Your task to perform on an android device: install app "The Home Depot" Image 0: 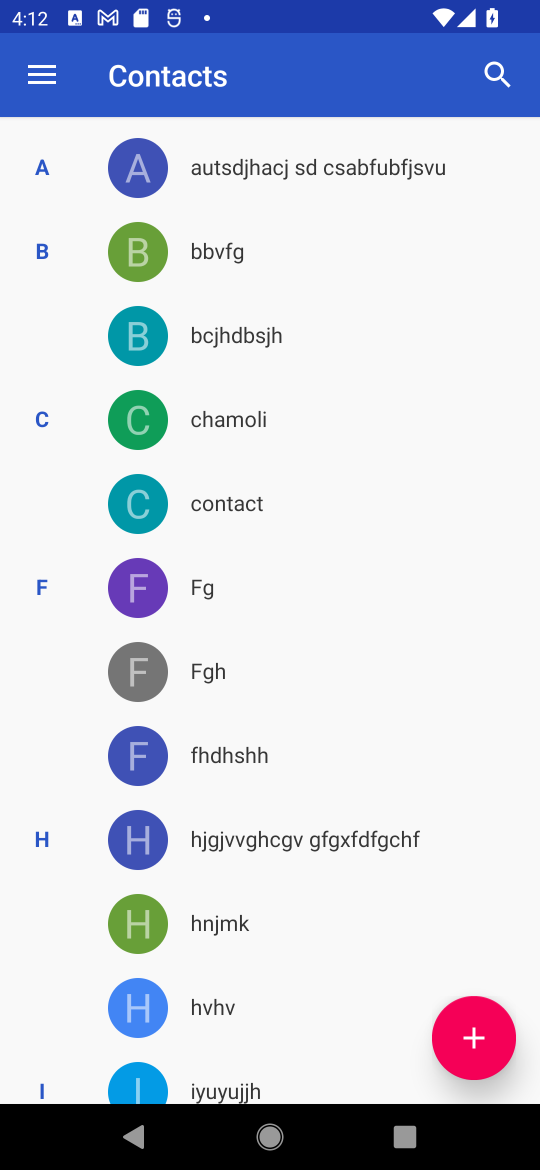
Step 0: press home button
Your task to perform on an android device: install app "The Home Depot" Image 1: 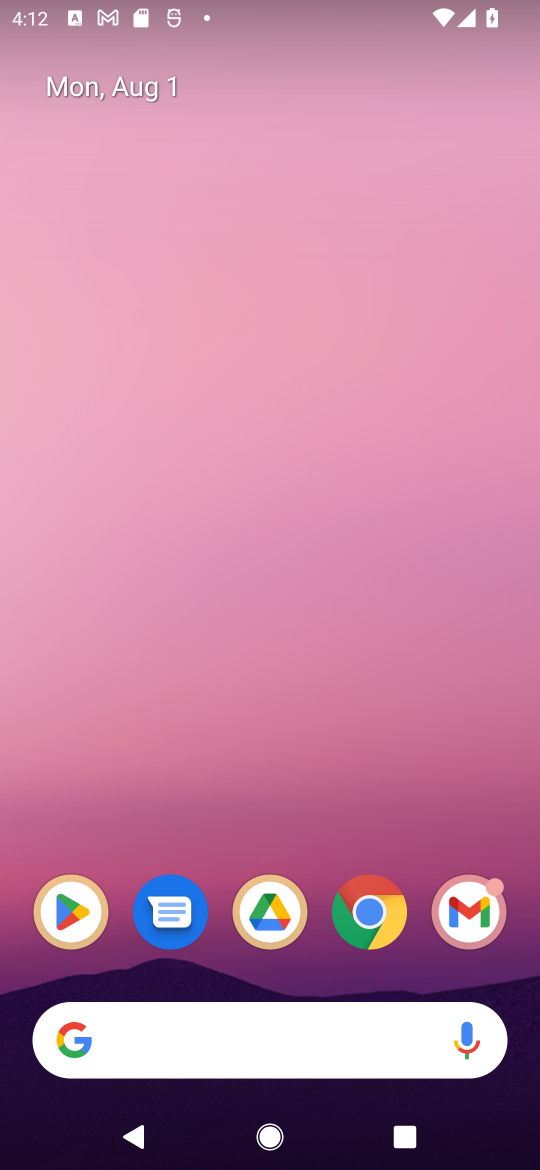
Step 1: click (67, 913)
Your task to perform on an android device: install app "The Home Depot" Image 2: 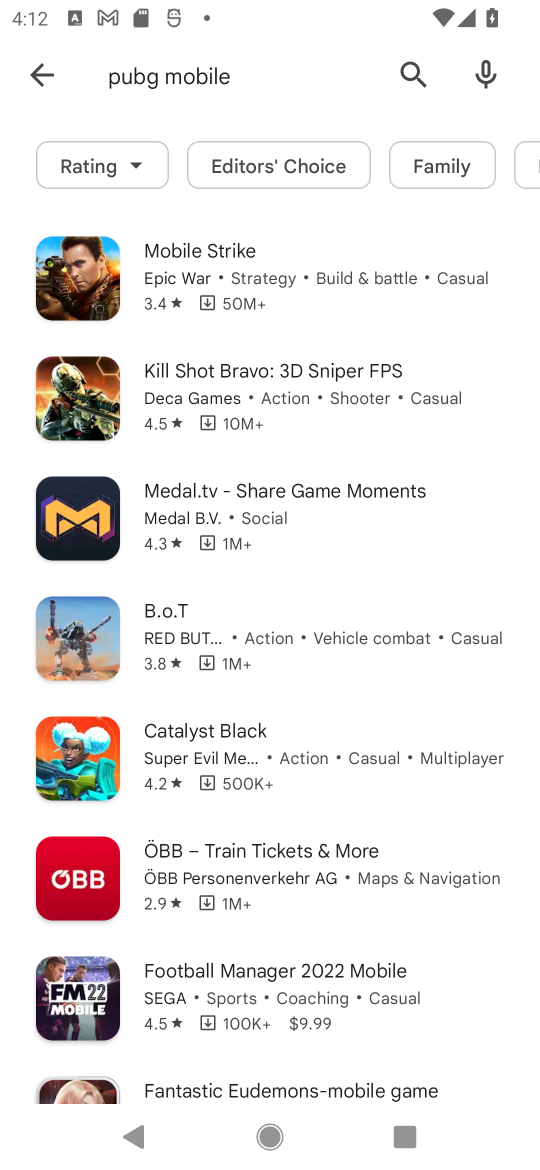
Step 2: click (401, 71)
Your task to perform on an android device: install app "The Home Depot" Image 3: 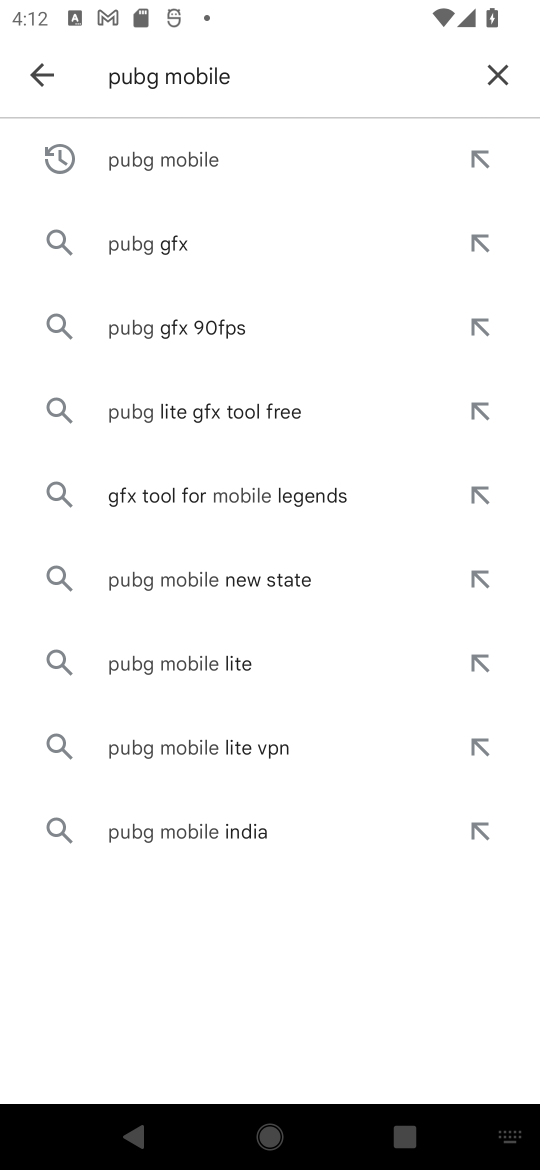
Step 3: click (503, 84)
Your task to perform on an android device: install app "The Home Depot" Image 4: 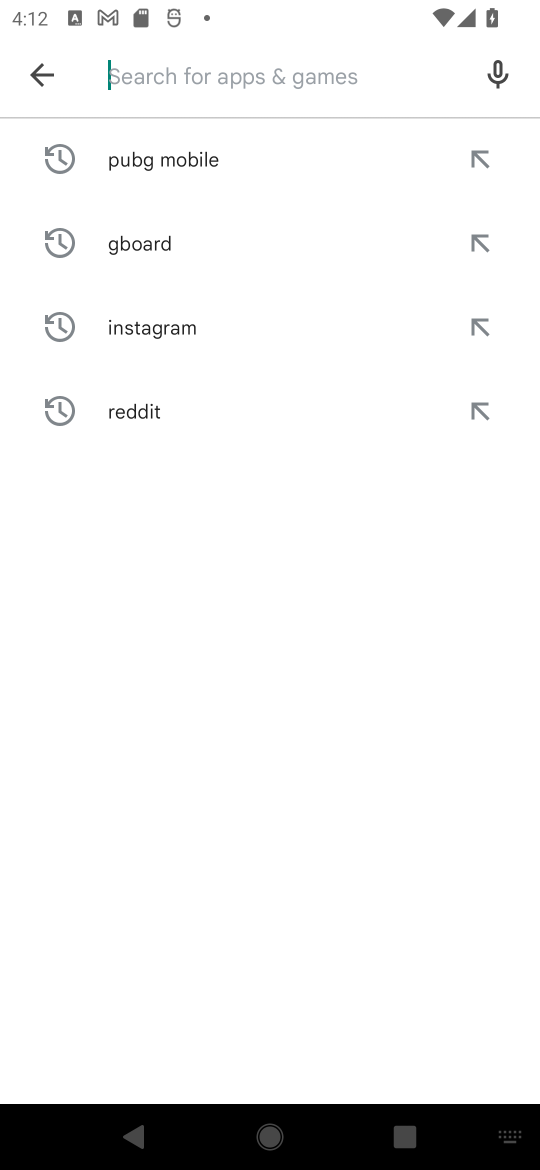
Step 4: type "The Home Depot"
Your task to perform on an android device: install app "The Home Depot" Image 5: 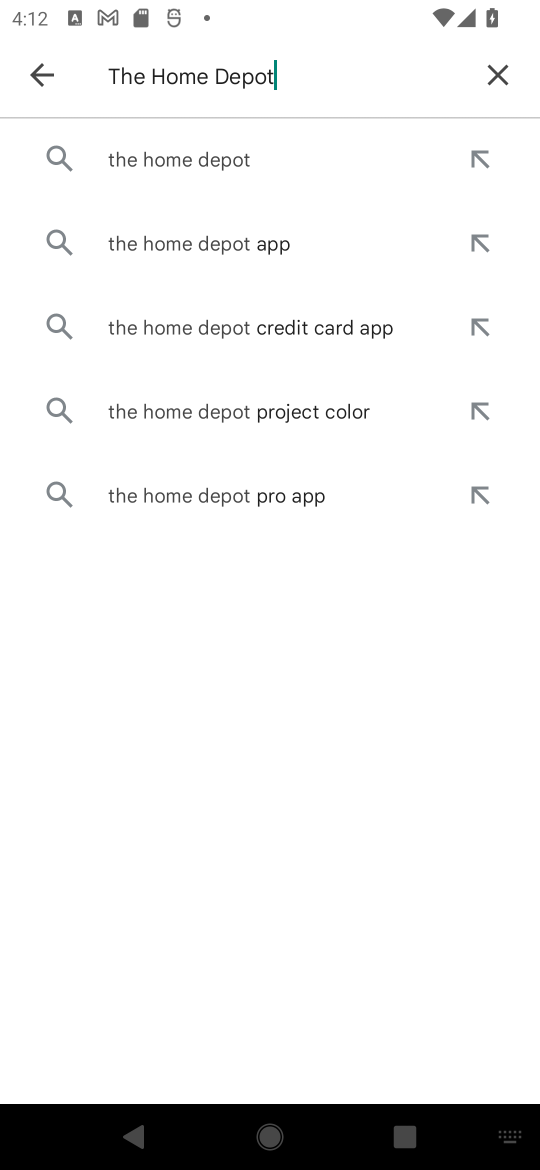
Step 5: click (181, 164)
Your task to perform on an android device: install app "The Home Depot" Image 6: 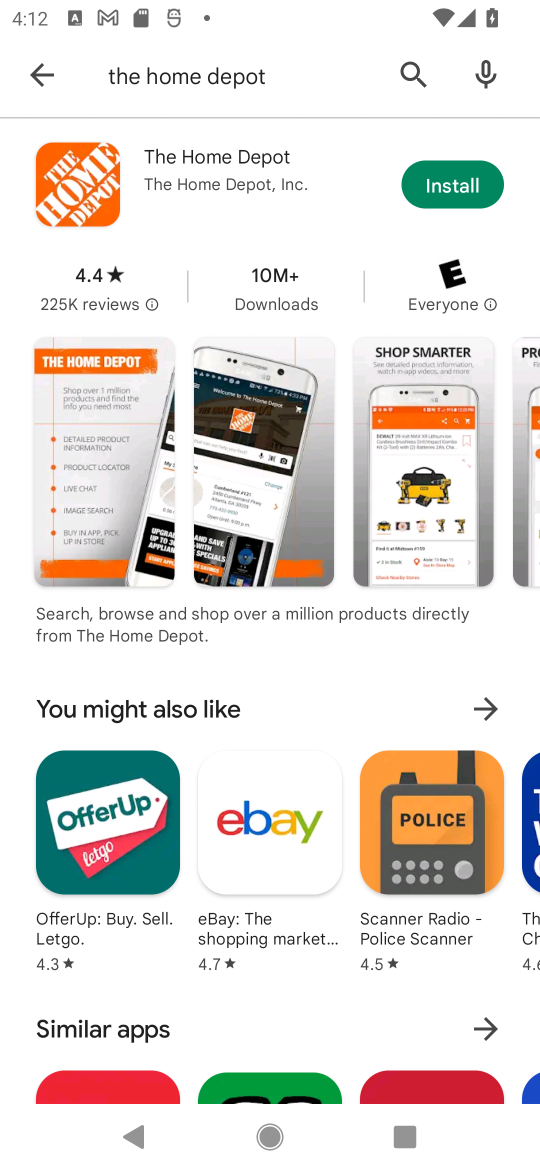
Step 6: click (462, 193)
Your task to perform on an android device: install app "The Home Depot" Image 7: 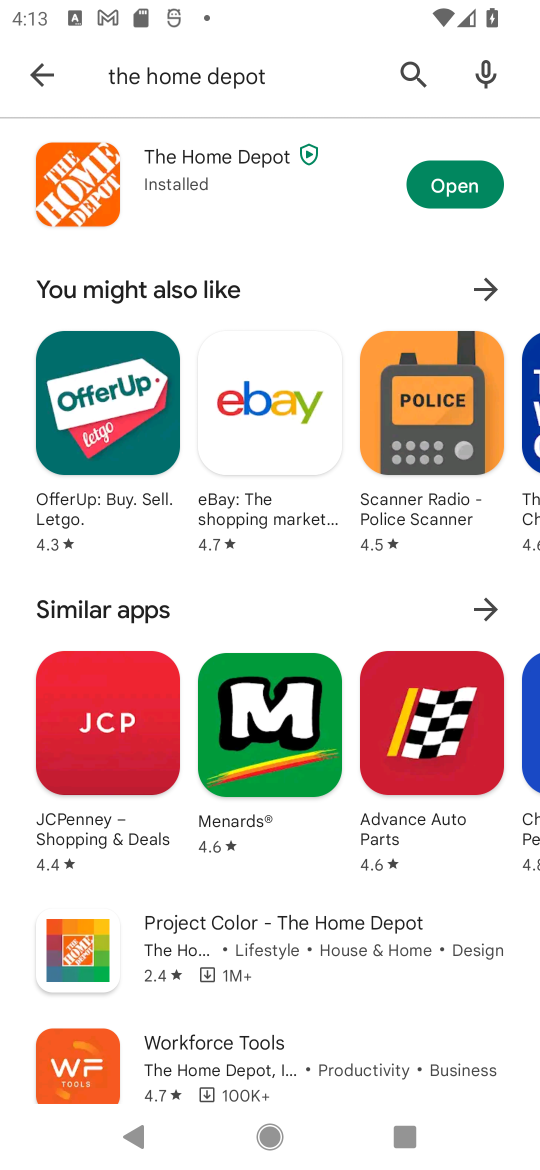
Step 7: task complete